Your task to perform on an android device: make emails show in primary in the gmail app Image 0: 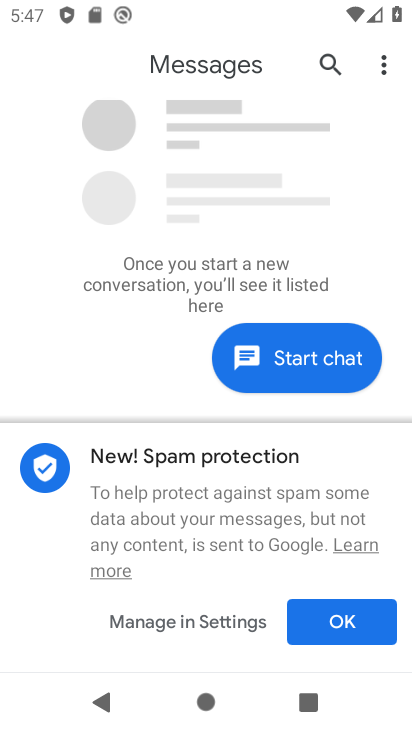
Step 0: drag from (189, 631) to (233, 258)
Your task to perform on an android device: make emails show in primary in the gmail app Image 1: 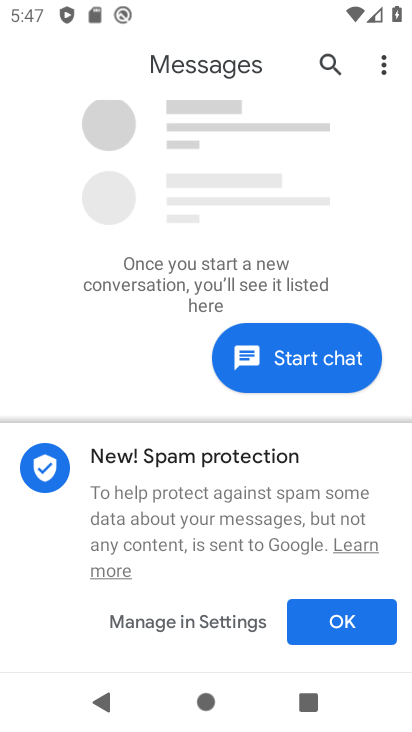
Step 1: press home button
Your task to perform on an android device: make emails show in primary in the gmail app Image 2: 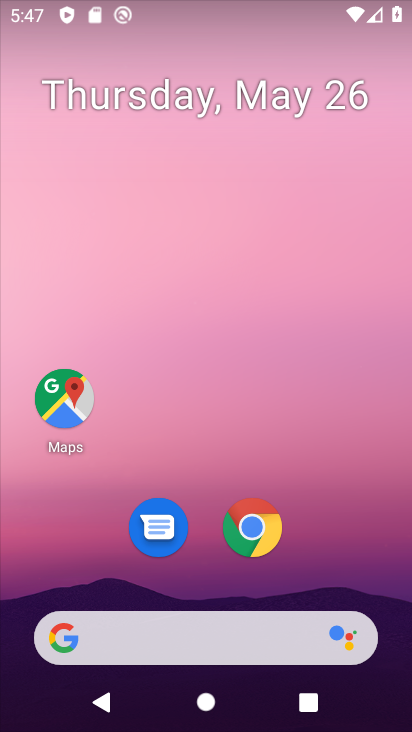
Step 2: drag from (179, 617) to (232, 192)
Your task to perform on an android device: make emails show in primary in the gmail app Image 3: 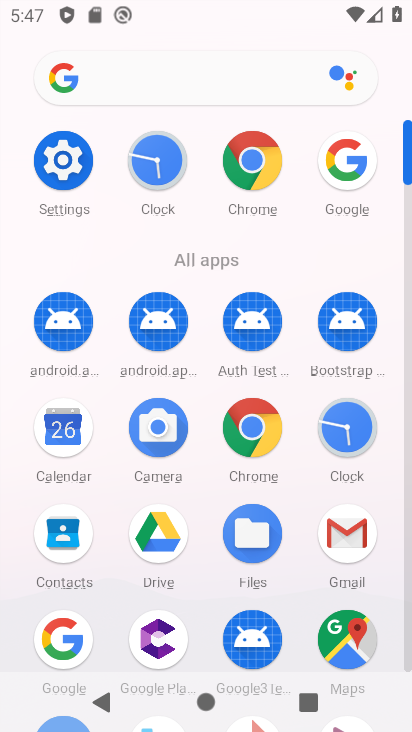
Step 3: click (338, 526)
Your task to perform on an android device: make emails show in primary in the gmail app Image 4: 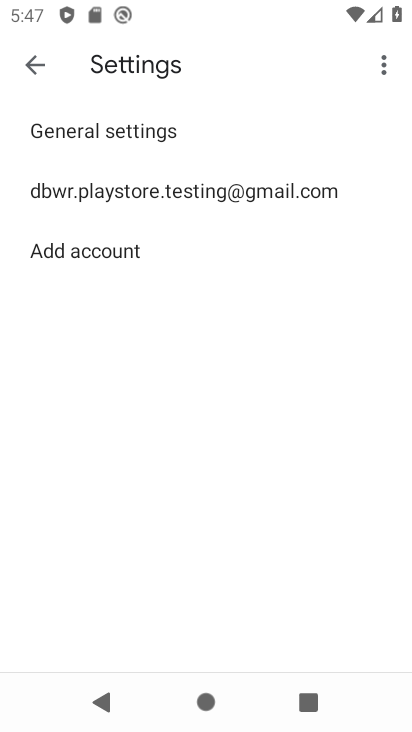
Step 4: click (80, 192)
Your task to perform on an android device: make emails show in primary in the gmail app Image 5: 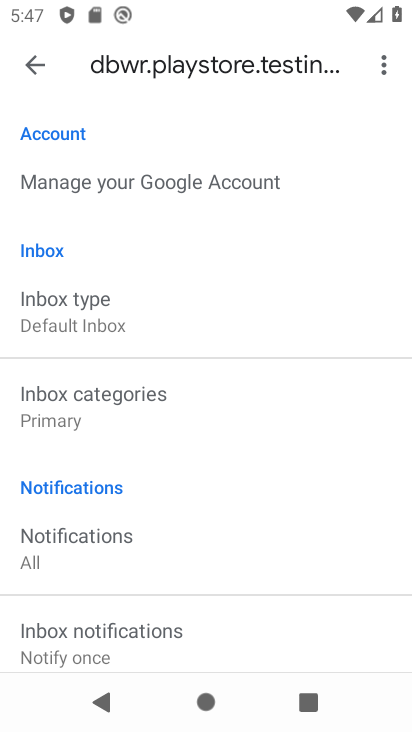
Step 5: task complete